Your task to perform on an android device: Open location settings Image 0: 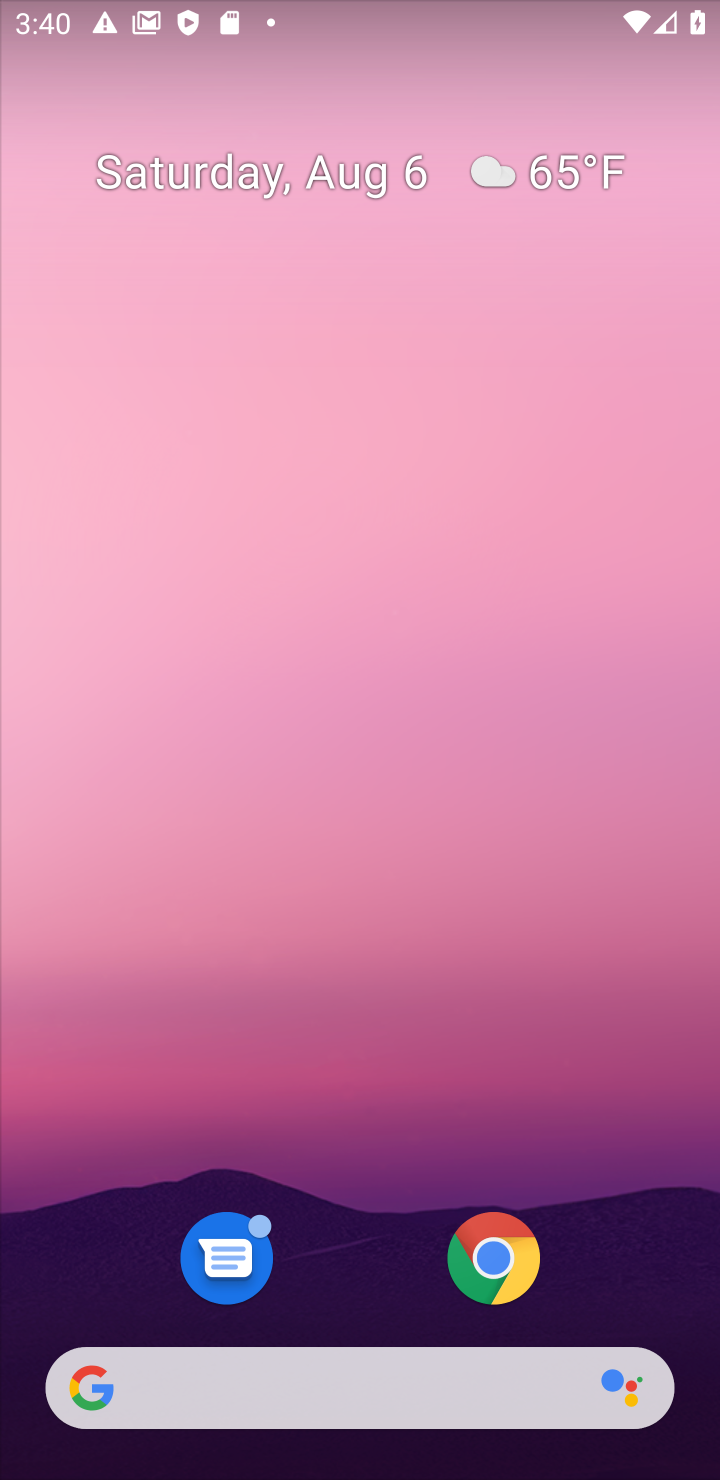
Step 0: click (381, 89)
Your task to perform on an android device: Open location settings Image 1: 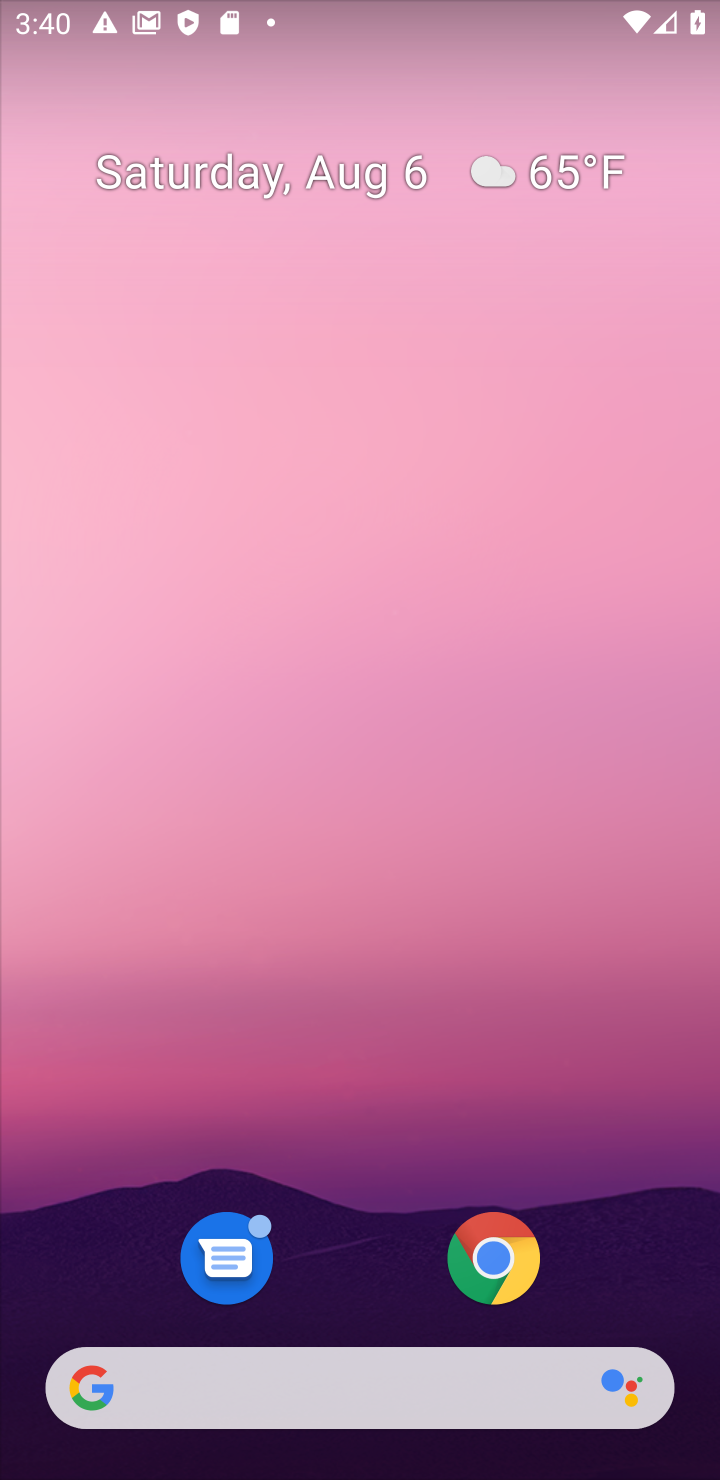
Step 1: drag from (371, 1299) to (342, 0)
Your task to perform on an android device: Open location settings Image 2: 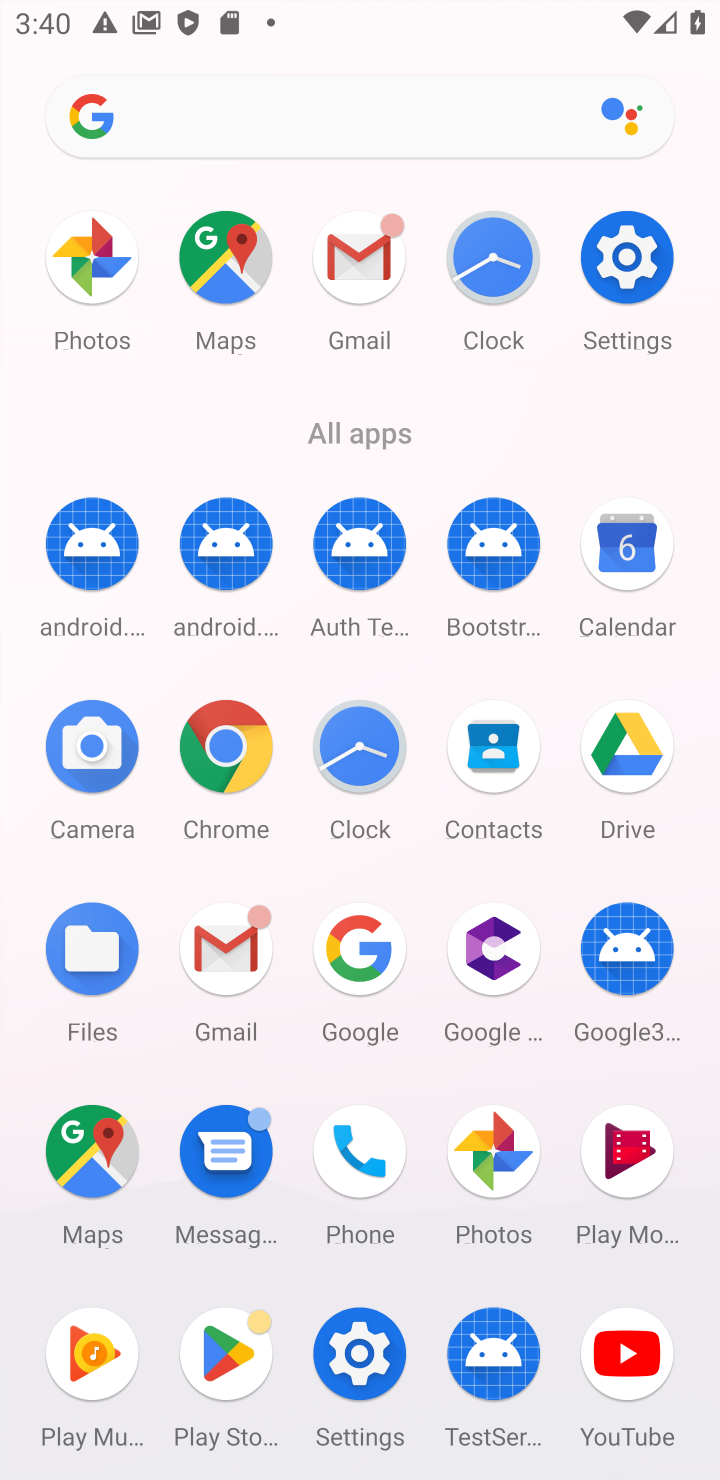
Step 2: click (644, 268)
Your task to perform on an android device: Open location settings Image 3: 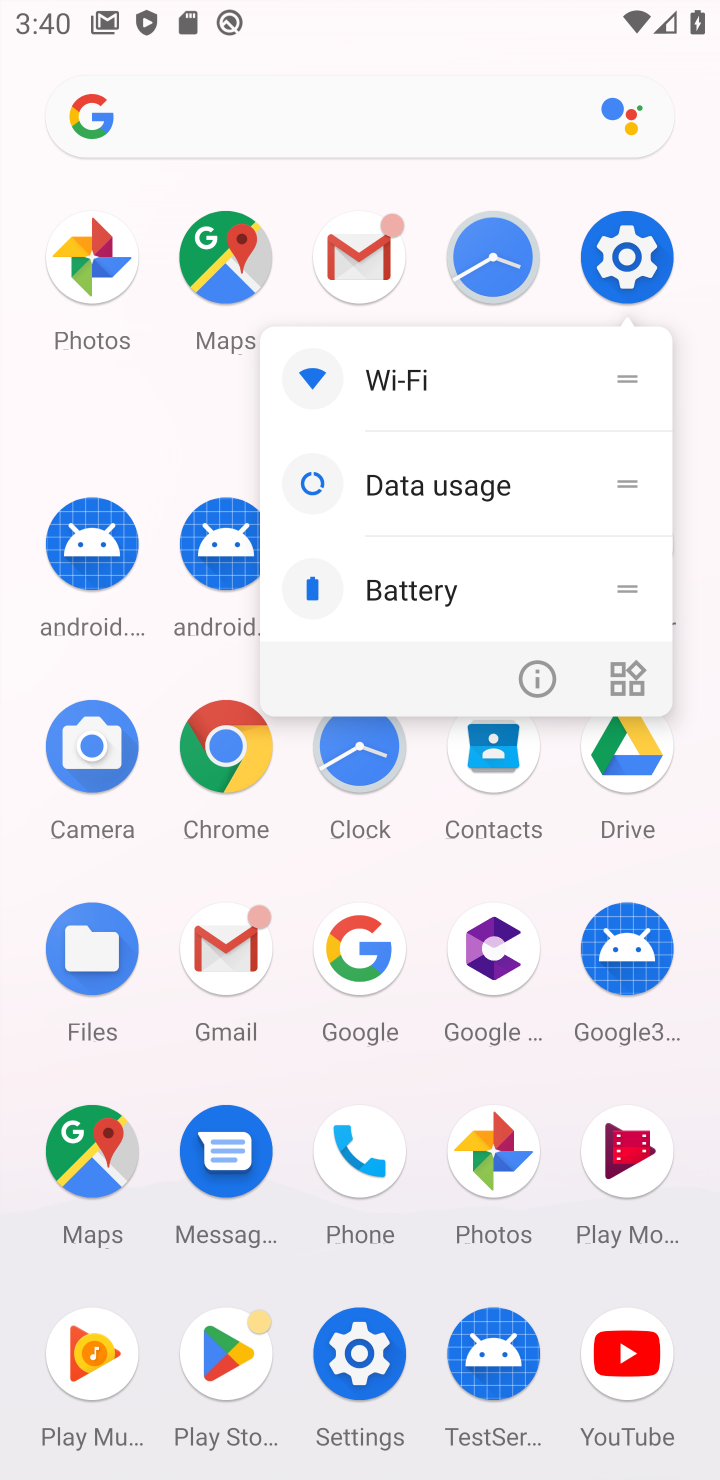
Step 3: click (645, 255)
Your task to perform on an android device: Open location settings Image 4: 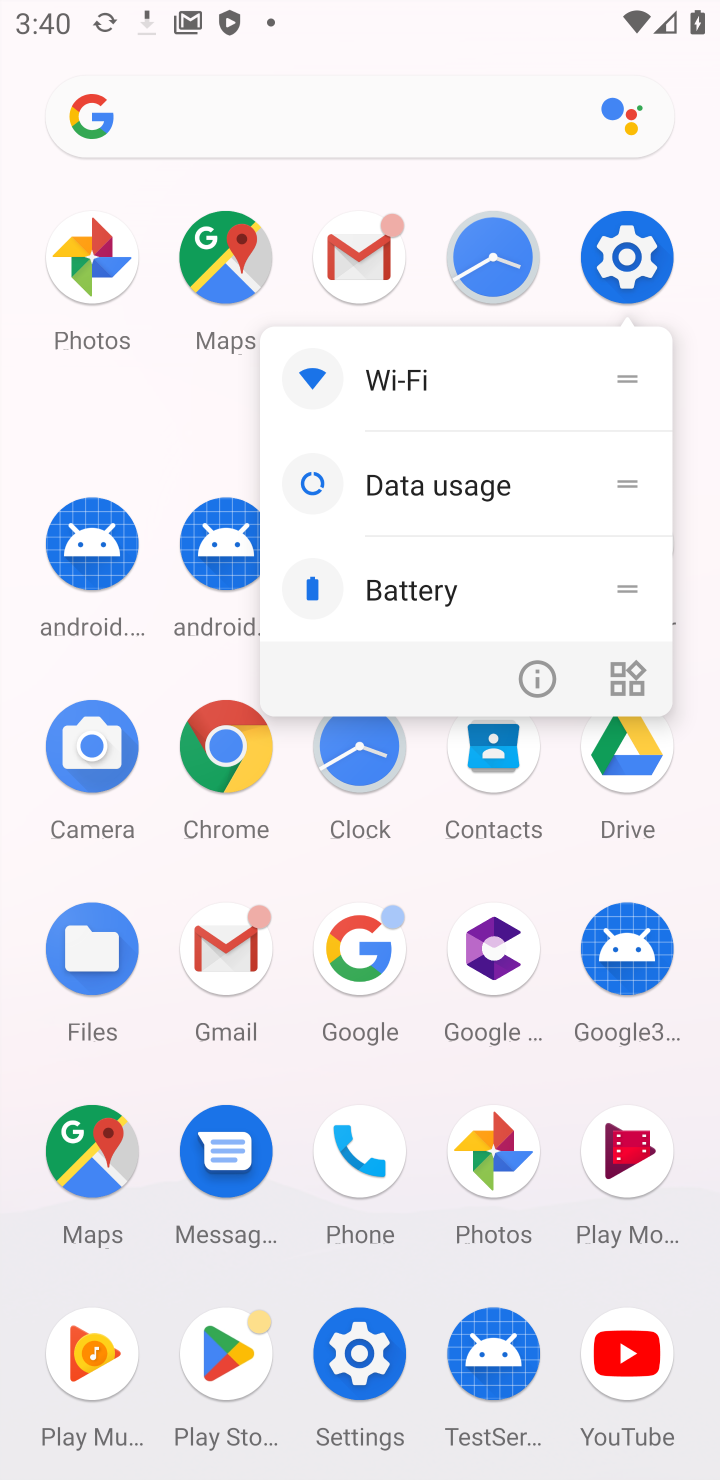
Step 4: click (636, 230)
Your task to perform on an android device: Open location settings Image 5: 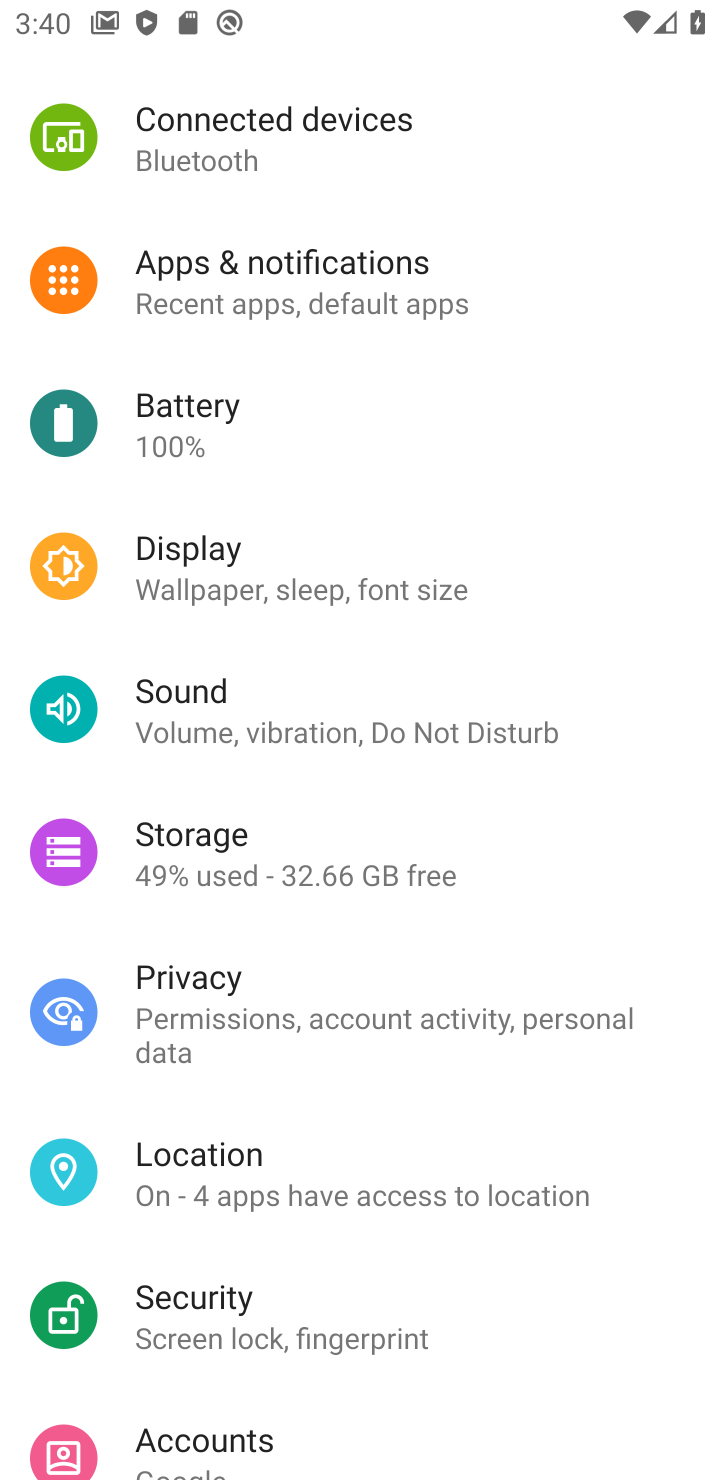
Step 5: click (210, 1175)
Your task to perform on an android device: Open location settings Image 6: 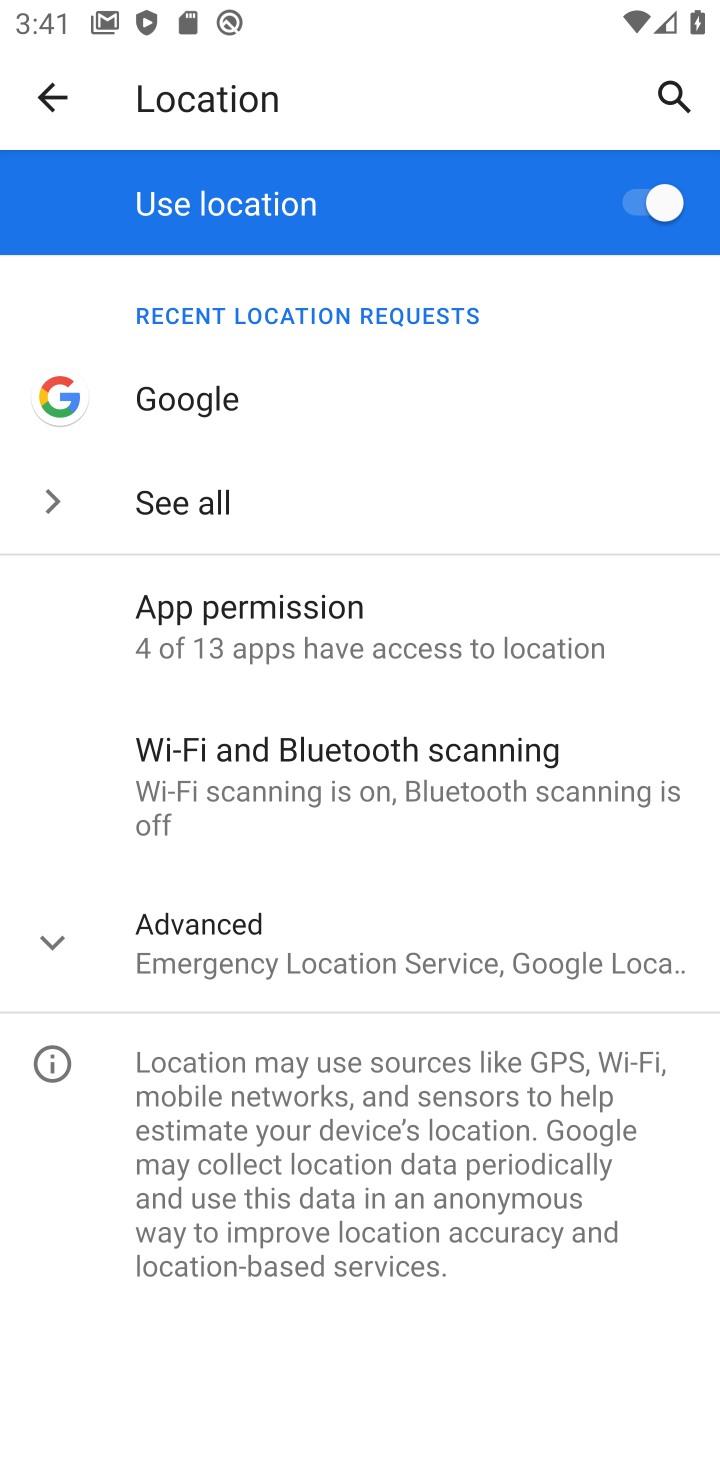
Step 6: task complete